Your task to perform on an android device: Go to Yahoo.com Image 0: 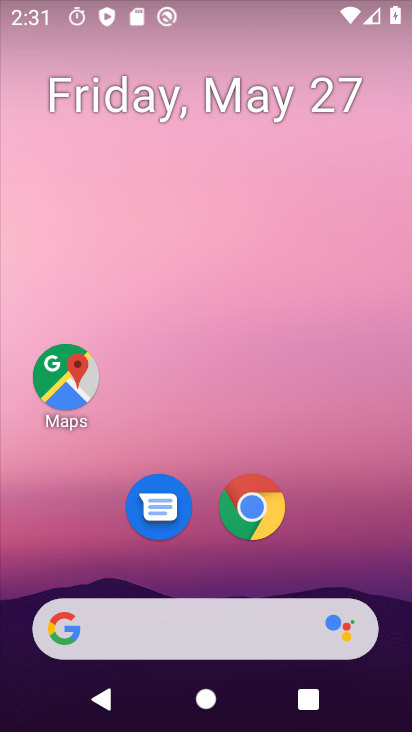
Step 0: drag from (190, 604) to (149, 189)
Your task to perform on an android device: Go to Yahoo.com Image 1: 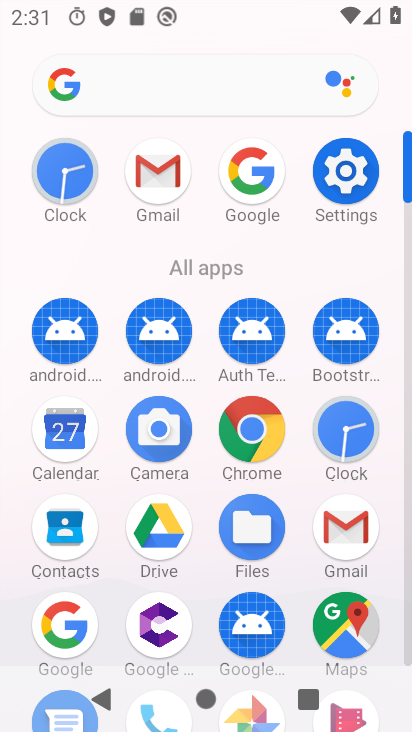
Step 1: click (258, 183)
Your task to perform on an android device: Go to Yahoo.com Image 2: 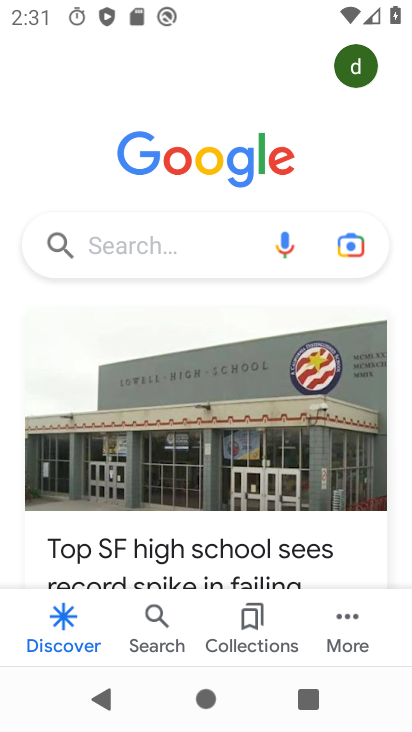
Step 2: click (149, 247)
Your task to perform on an android device: Go to Yahoo.com Image 3: 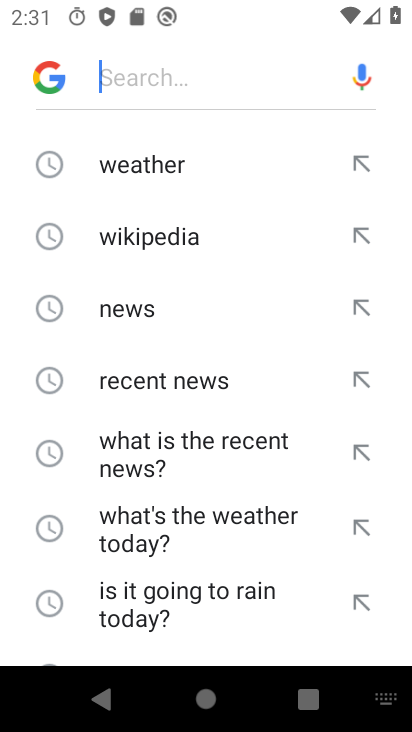
Step 3: drag from (173, 617) to (172, 257)
Your task to perform on an android device: Go to Yahoo.com Image 4: 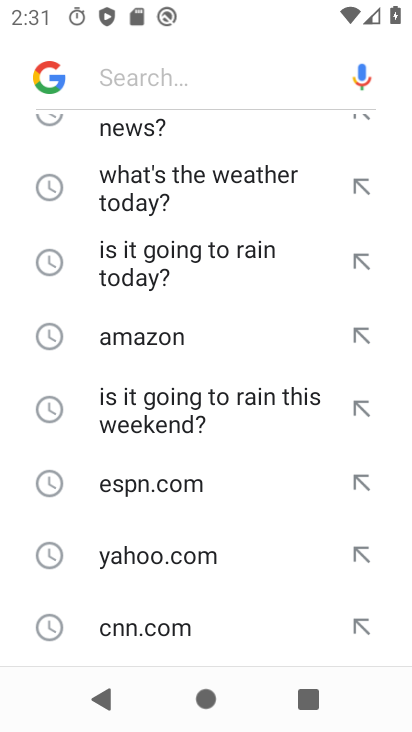
Step 4: click (176, 562)
Your task to perform on an android device: Go to Yahoo.com Image 5: 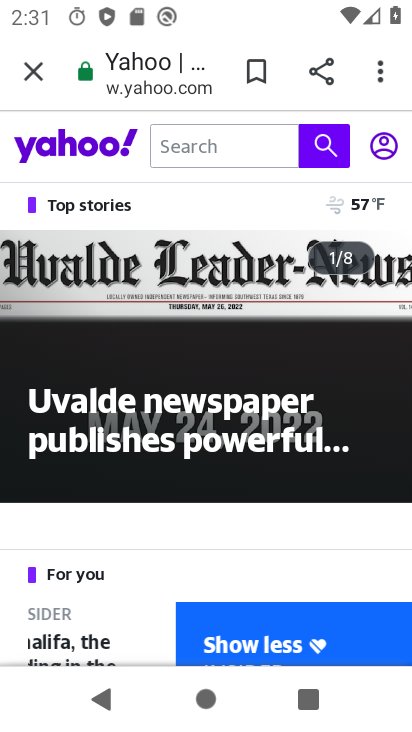
Step 5: task complete